Your task to perform on an android device: turn off picture-in-picture Image 0: 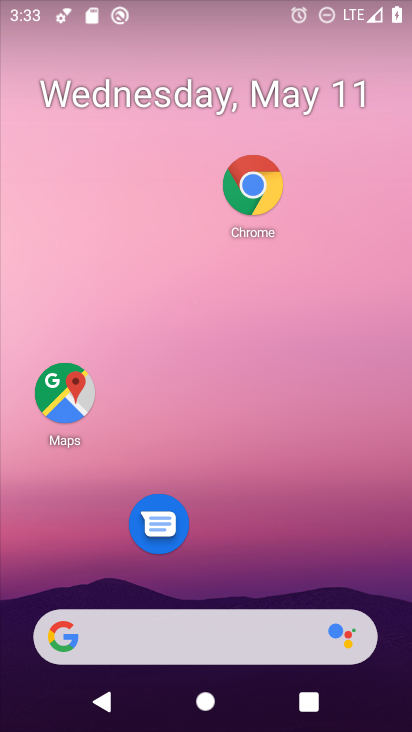
Step 0: click (240, 163)
Your task to perform on an android device: turn off picture-in-picture Image 1: 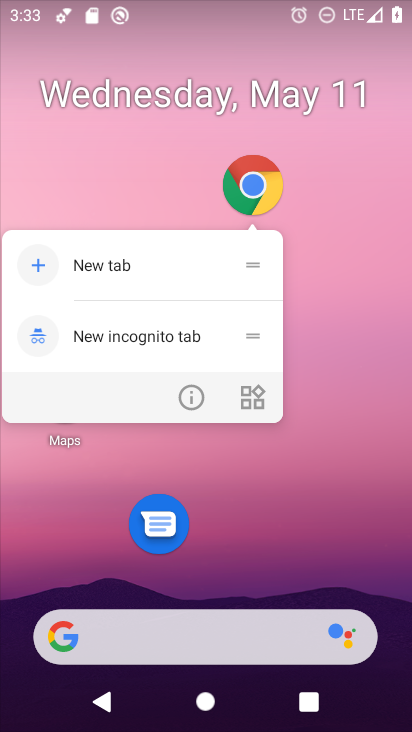
Step 1: click (192, 395)
Your task to perform on an android device: turn off picture-in-picture Image 2: 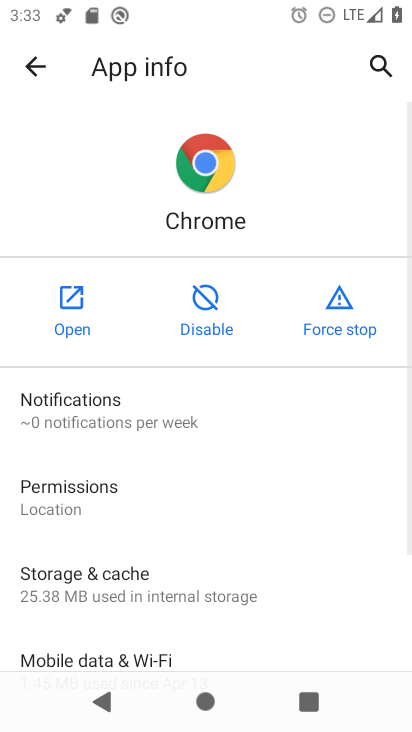
Step 2: drag from (250, 566) to (186, 173)
Your task to perform on an android device: turn off picture-in-picture Image 3: 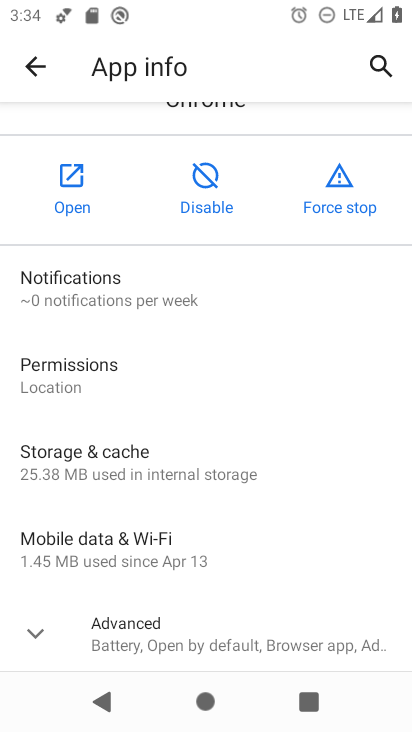
Step 3: click (32, 622)
Your task to perform on an android device: turn off picture-in-picture Image 4: 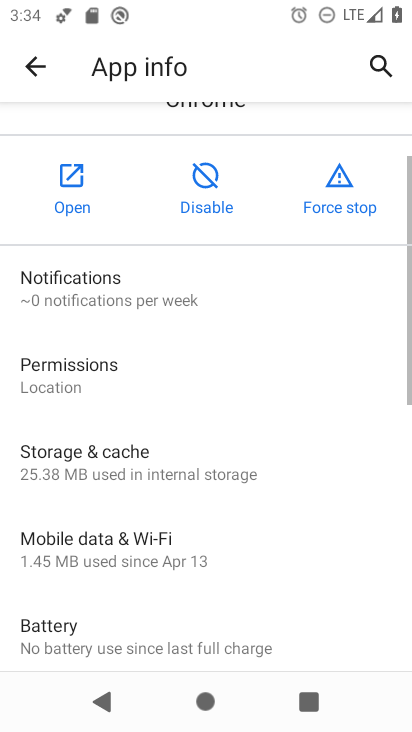
Step 4: drag from (216, 574) to (229, 35)
Your task to perform on an android device: turn off picture-in-picture Image 5: 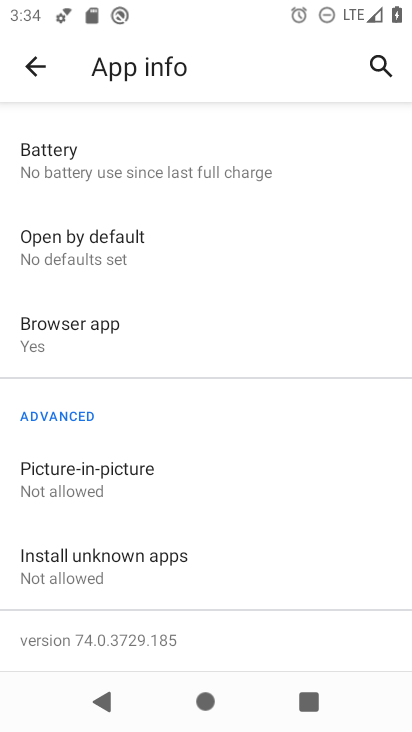
Step 5: click (128, 472)
Your task to perform on an android device: turn off picture-in-picture Image 6: 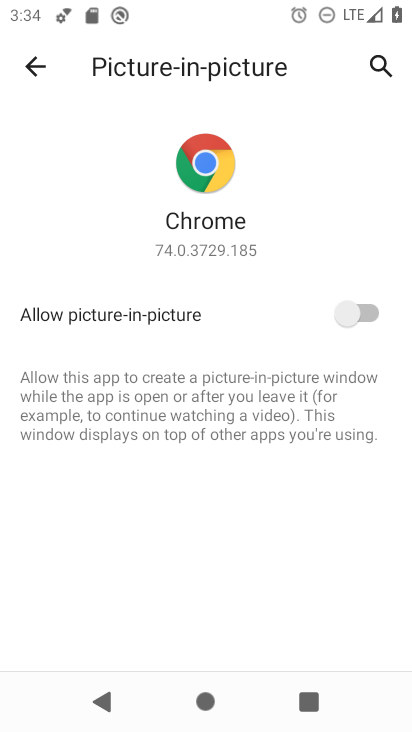
Step 6: task complete